Your task to perform on an android device: Go to Google maps Image 0: 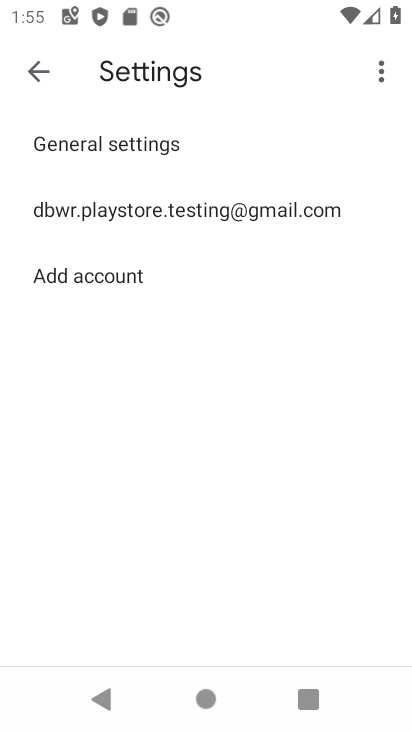
Step 0: press home button
Your task to perform on an android device: Go to Google maps Image 1: 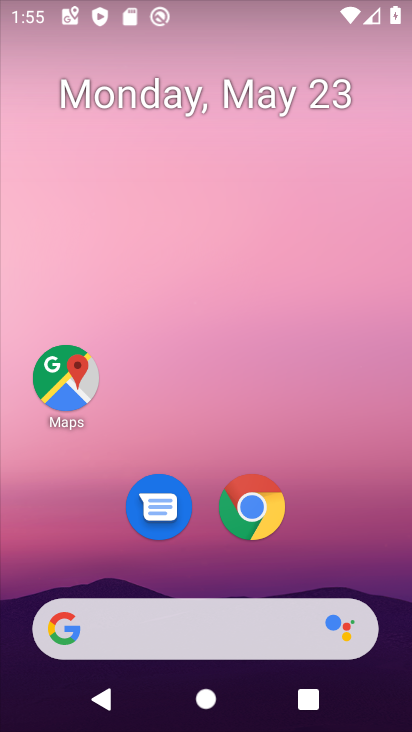
Step 1: drag from (228, 673) to (200, 11)
Your task to perform on an android device: Go to Google maps Image 2: 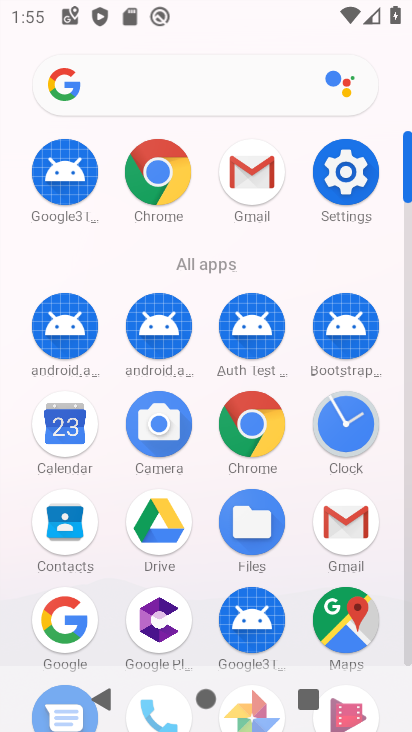
Step 2: click (346, 625)
Your task to perform on an android device: Go to Google maps Image 3: 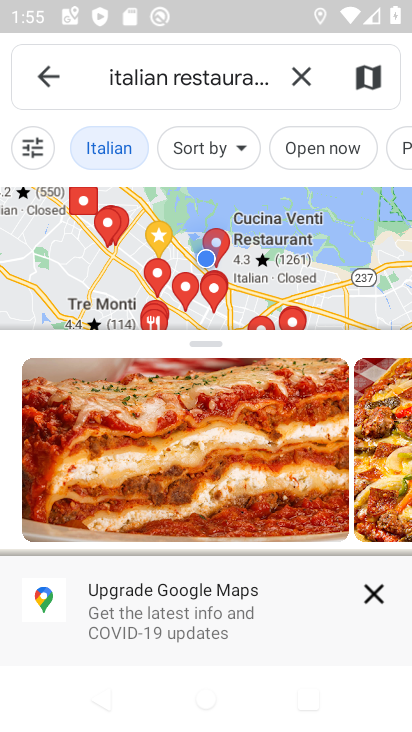
Step 3: task complete